Your task to perform on an android device: manage bookmarks in the chrome app Image 0: 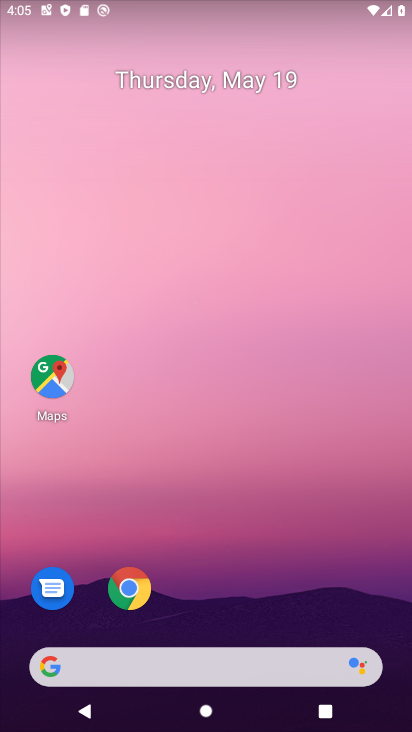
Step 0: click (136, 584)
Your task to perform on an android device: manage bookmarks in the chrome app Image 1: 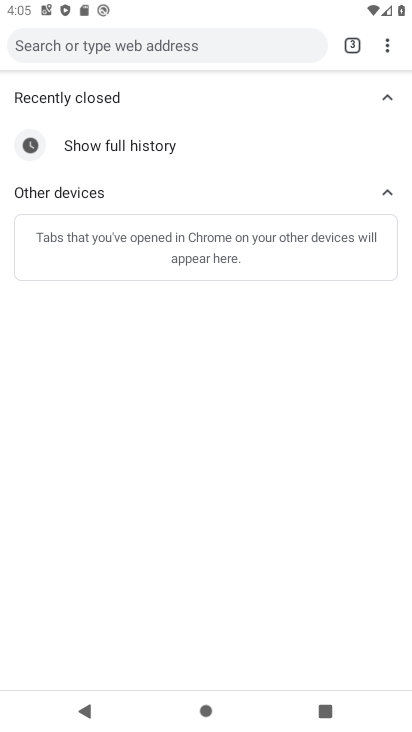
Step 1: click (399, 45)
Your task to perform on an android device: manage bookmarks in the chrome app Image 2: 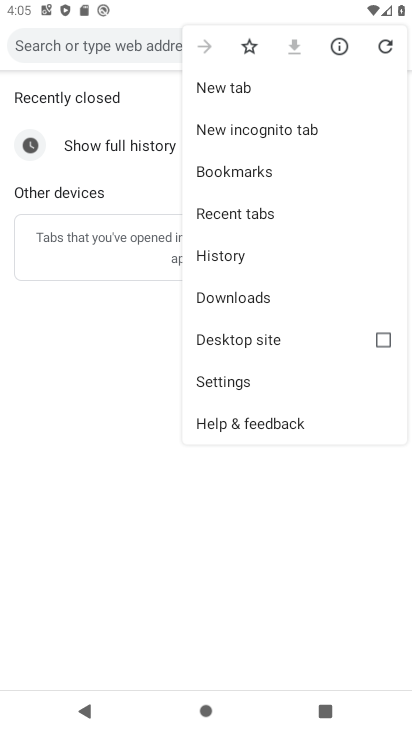
Step 2: click (273, 174)
Your task to perform on an android device: manage bookmarks in the chrome app Image 3: 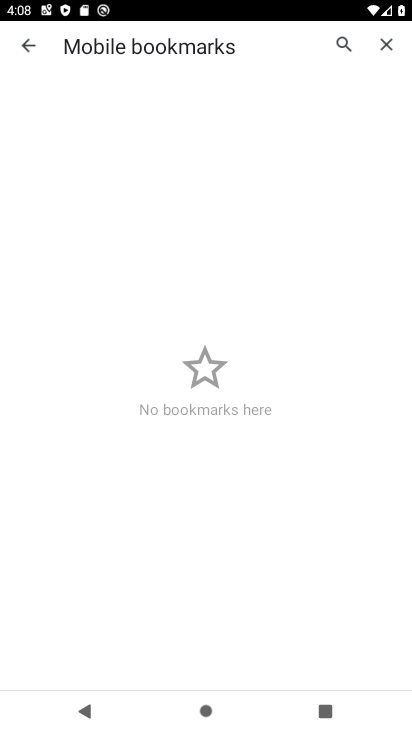
Step 3: task complete